Your task to perform on an android device: set default search engine in the chrome app Image 0: 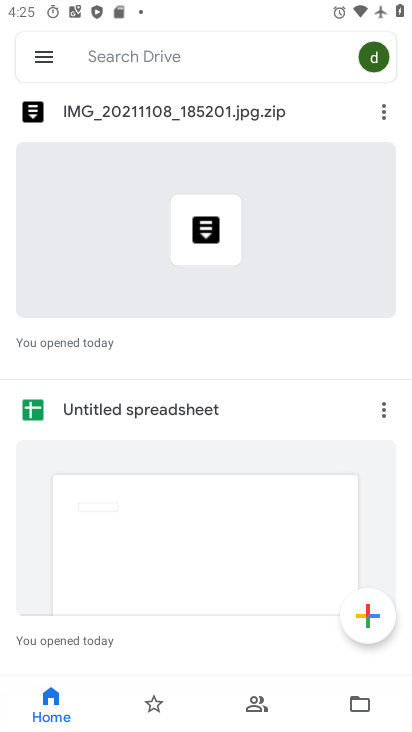
Step 0: press back button
Your task to perform on an android device: set default search engine in the chrome app Image 1: 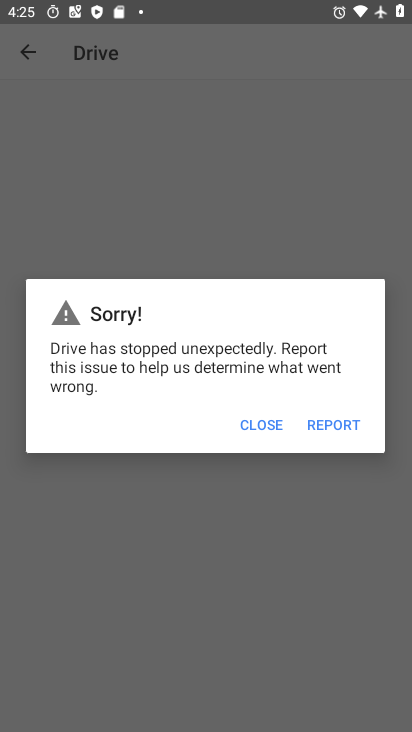
Step 1: press home button
Your task to perform on an android device: set default search engine in the chrome app Image 2: 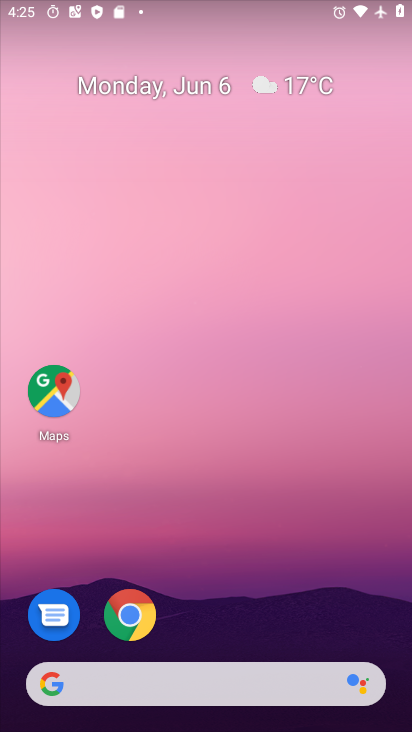
Step 2: drag from (242, 575) to (210, 14)
Your task to perform on an android device: set default search engine in the chrome app Image 3: 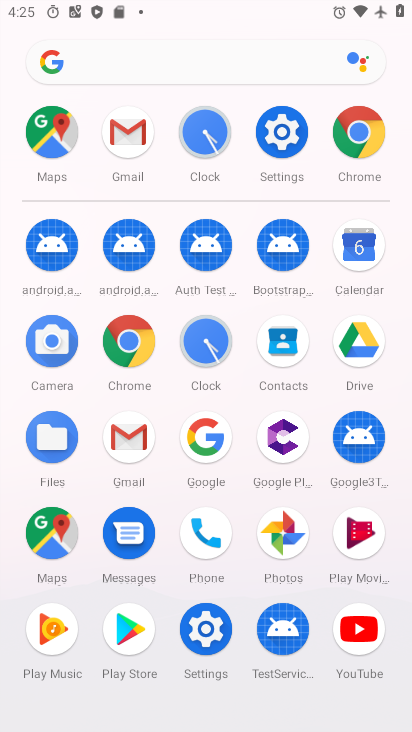
Step 3: drag from (2, 638) to (18, 300)
Your task to perform on an android device: set default search engine in the chrome app Image 4: 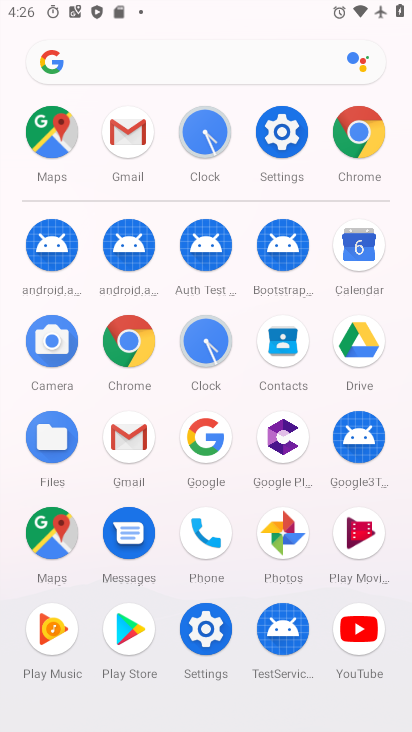
Step 4: click (131, 337)
Your task to perform on an android device: set default search engine in the chrome app Image 5: 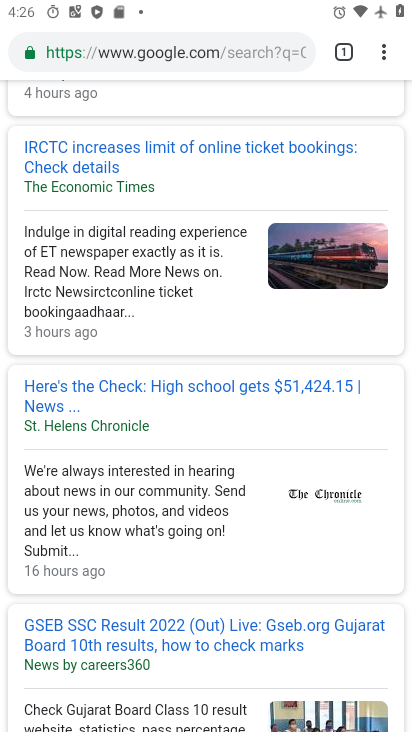
Step 5: task complete